Your task to perform on an android device: check data usage Image 0: 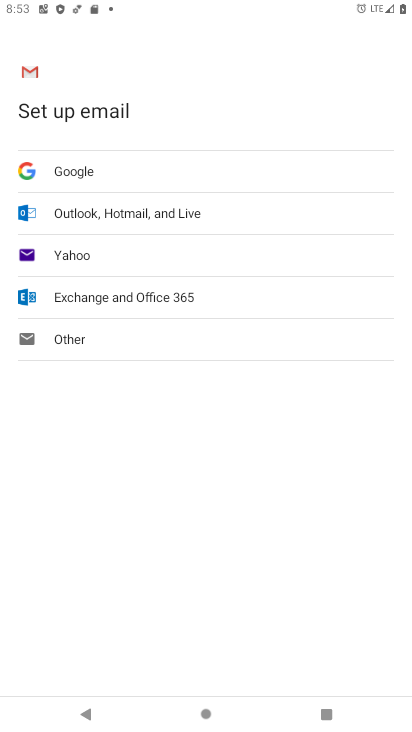
Step 0: press home button
Your task to perform on an android device: check data usage Image 1: 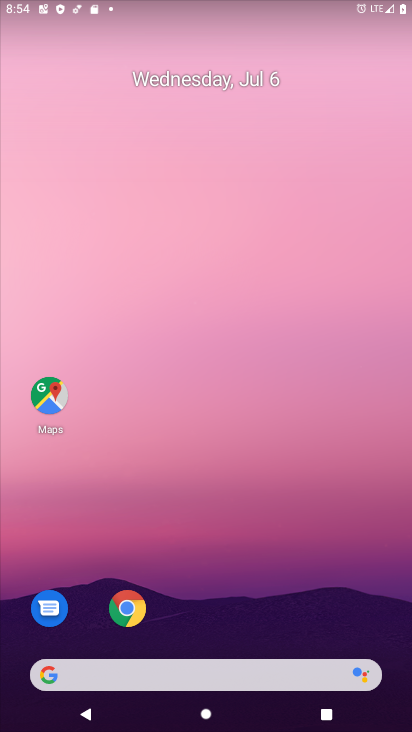
Step 1: drag from (362, 611) to (258, 51)
Your task to perform on an android device: check data usage Image 2: 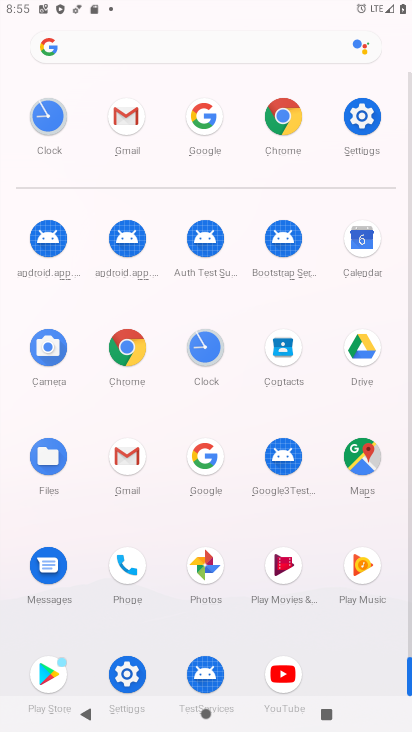
Step 2: click (355, 128)
Your task to perform on an android device: check data usage Image 3: 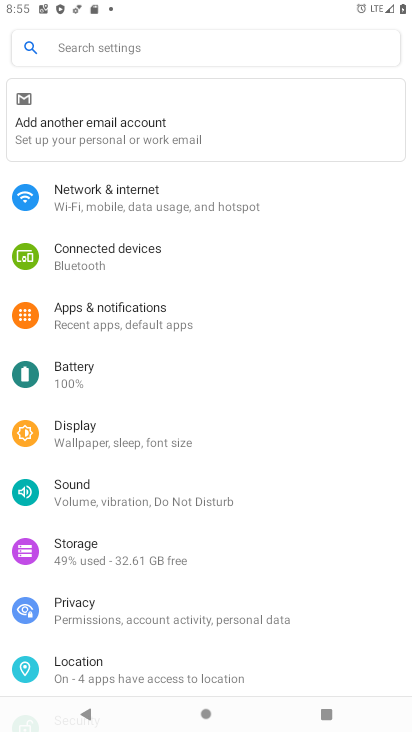
Step 3: click (104, 381)
Your task to perform on an android device: check data usage Image 4: 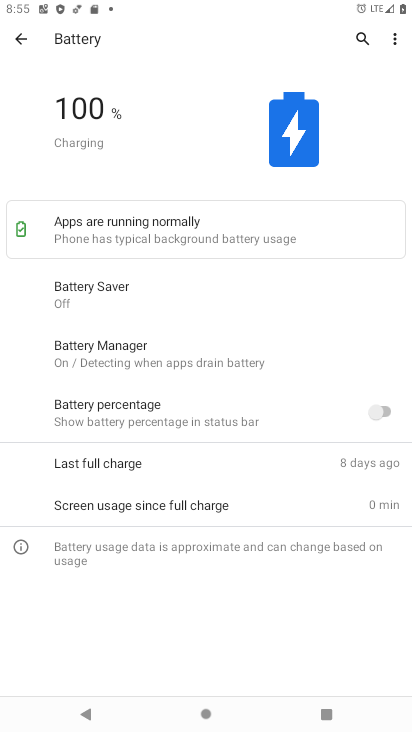
Step 4: click (393, 35)
Your task to perform on an android device: check data usage Image 5: 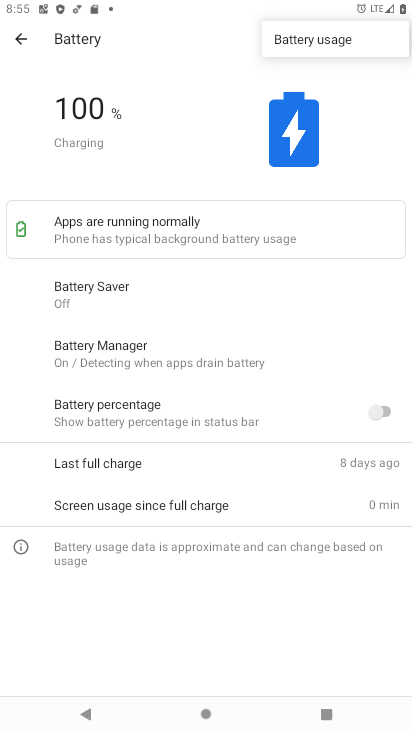
Step 5: click (325, 42)
Your task to perform on an android device: check data usage Image 6: 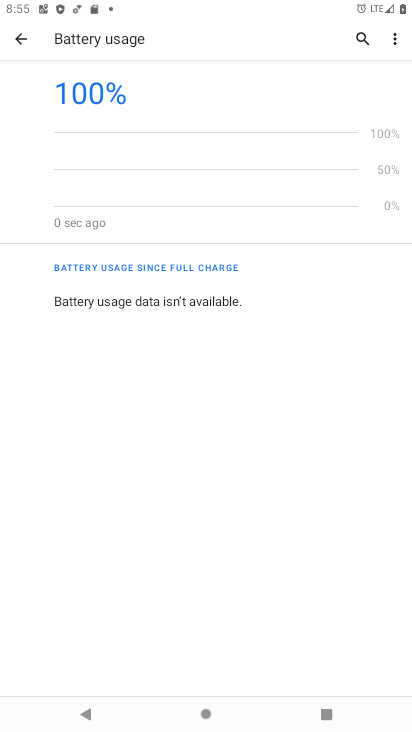
Step 6: task complete